Your task to perform on an android device: check google app version Image 0: 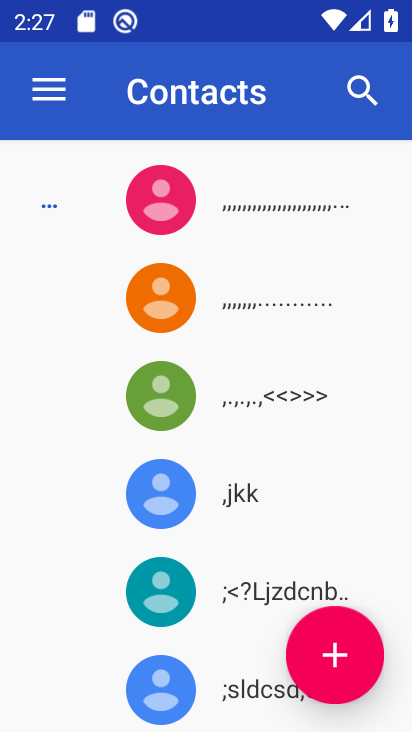
Step 0: press back button
Your task to perform on an android device: check google app version Image 1: 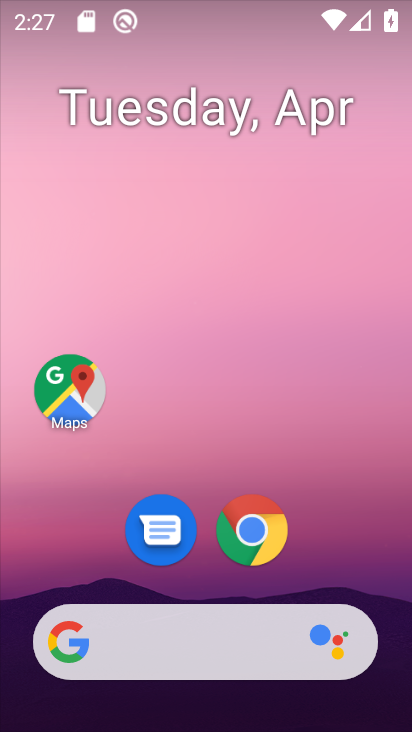
Step 1: drag from (210, 727) to (219, 64)
Your task to perform on an android device: check google app version Image 2: 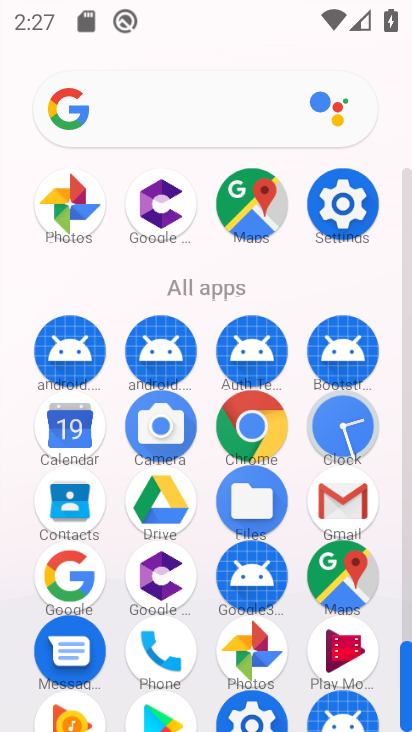
Step 2: click (67, 571)
Your task to perform on an android device: check google app version Image 3: 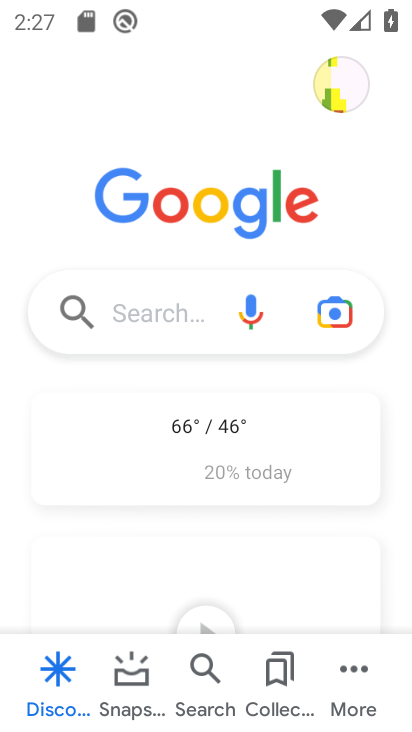
Step 3: click (350, 662)
Your task to perform on an android device: check google app version Image 4: 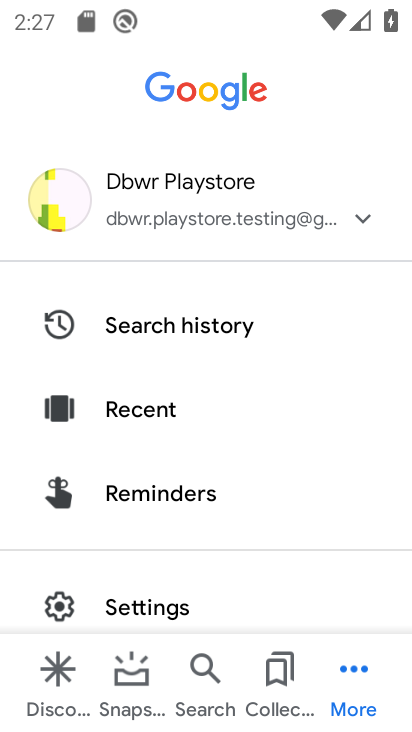
Step 4: click (151, 603)
Your task to perform on an android device: check google app version Image 5: 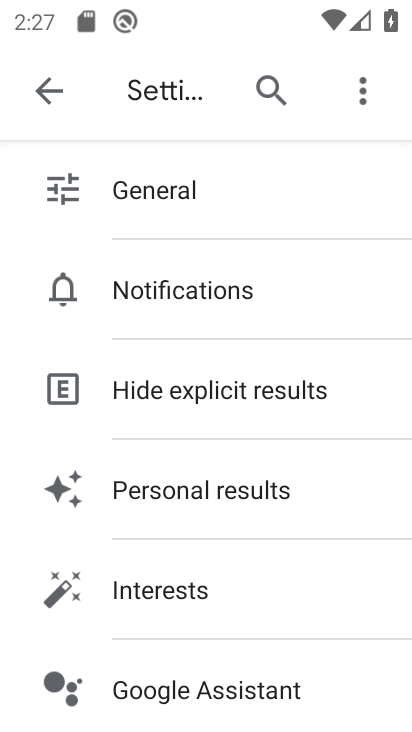
Step 5: drag from (185, 632) to (187, 205)
Your task to perform on an android device: check google app version Image 6: 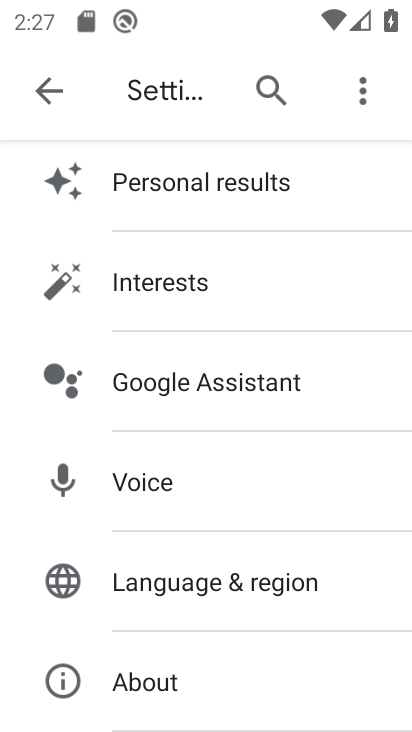
Step 6: click (147, 683)
Your task to perform on an android device: check google app version Image 7: 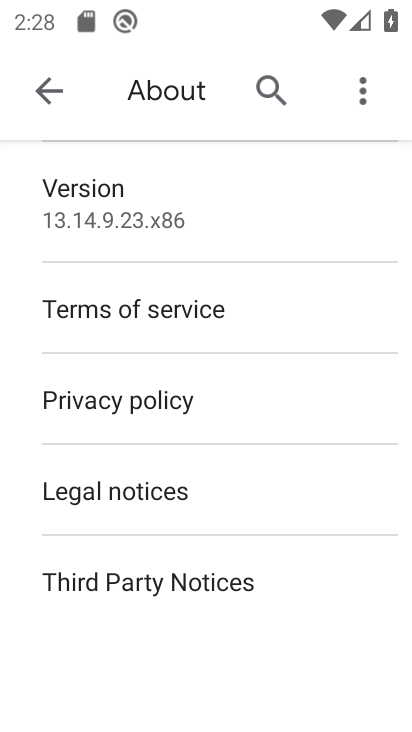
Step 7: task complete